Your task to perform on an android device: Open calendar and show me the first week of next month Image 0: 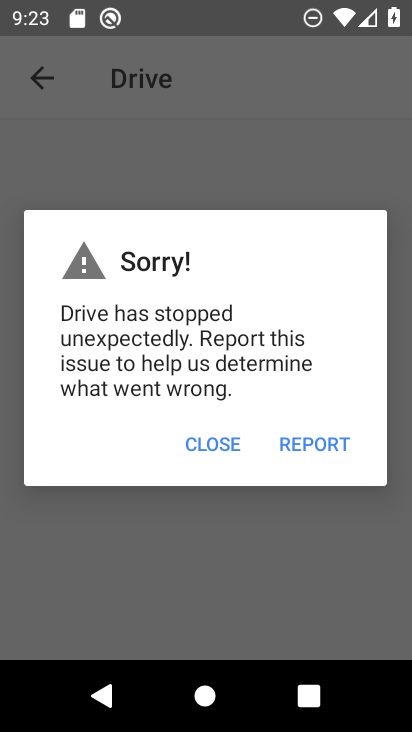
Step 0: press home button
Your task to perform on an android device: Open calendar and show me the first week of next month Image 1: 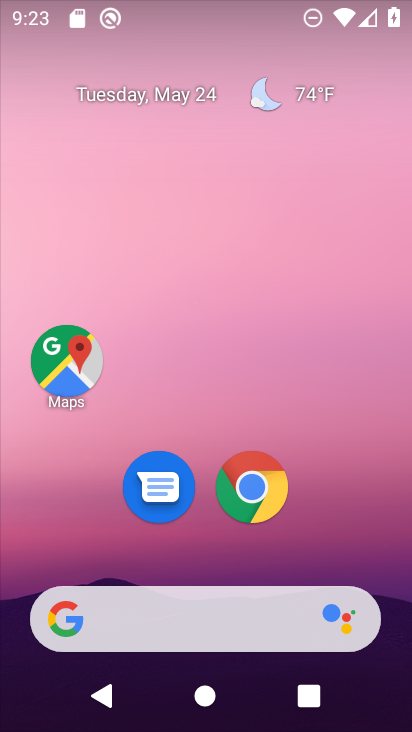
Step 1: drag from (351, 577) to (386, 31)
Your task to perform on an android device: Open calendar and show me the first week of next month Image 2: 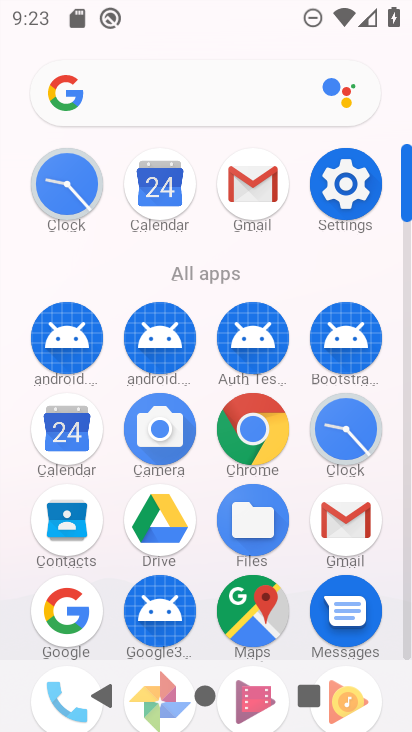
Step 2: click (147, 185)
Your task to perform on an android device: Open calendar and show me the first week of next month Image 3: 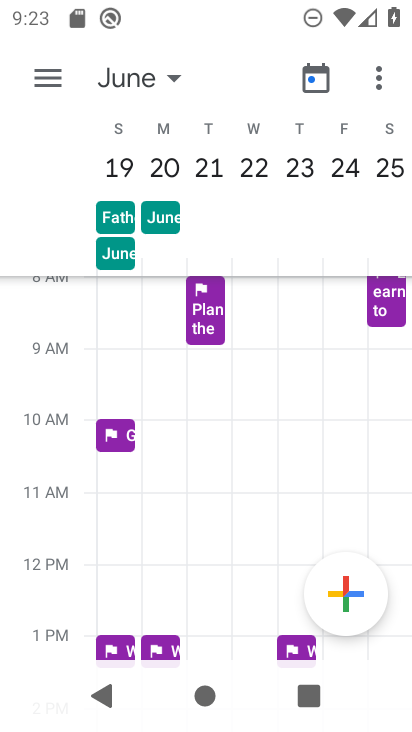
Step 3: task complete